Your task to perform on an android device: open app "Mercado Libre" Image 0: 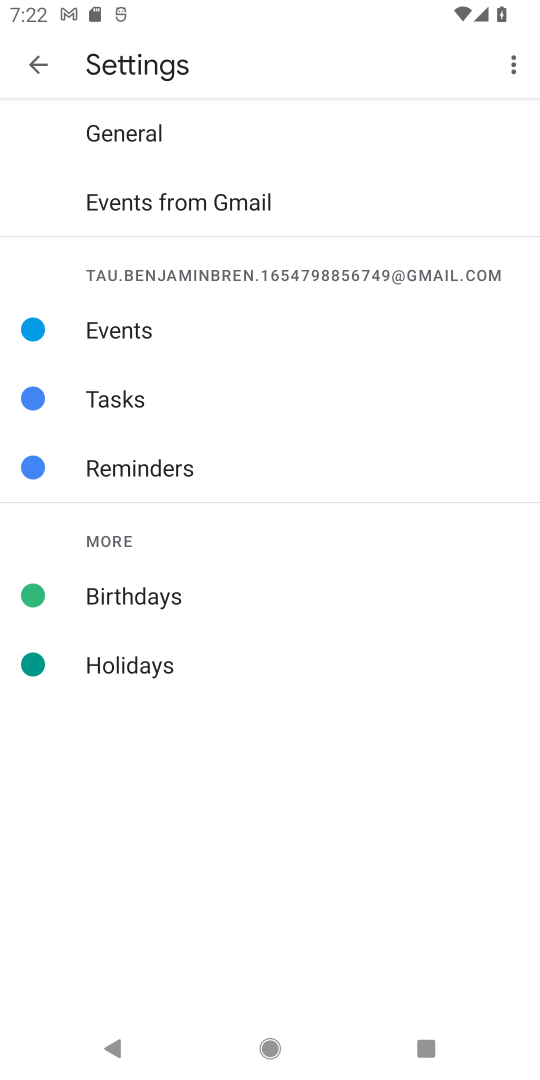
Step 0: drag from (292, 793) to (332, 322)
Your task to perform on an android device: open app "Mercado Libre" Image 1: 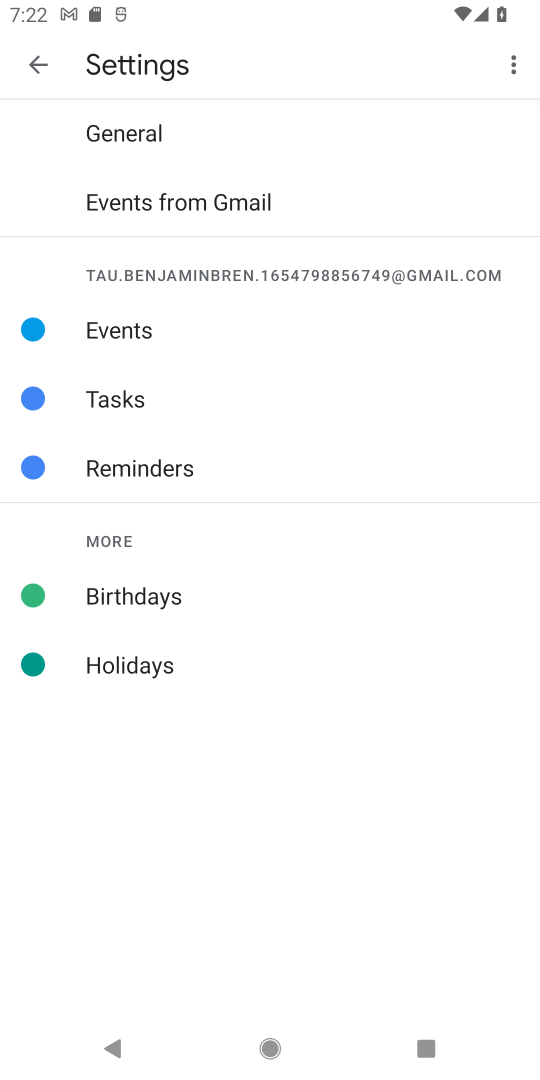
Step 1: press home button
Your task to perform on an android device: open app "Mercado Libre" Image 2: 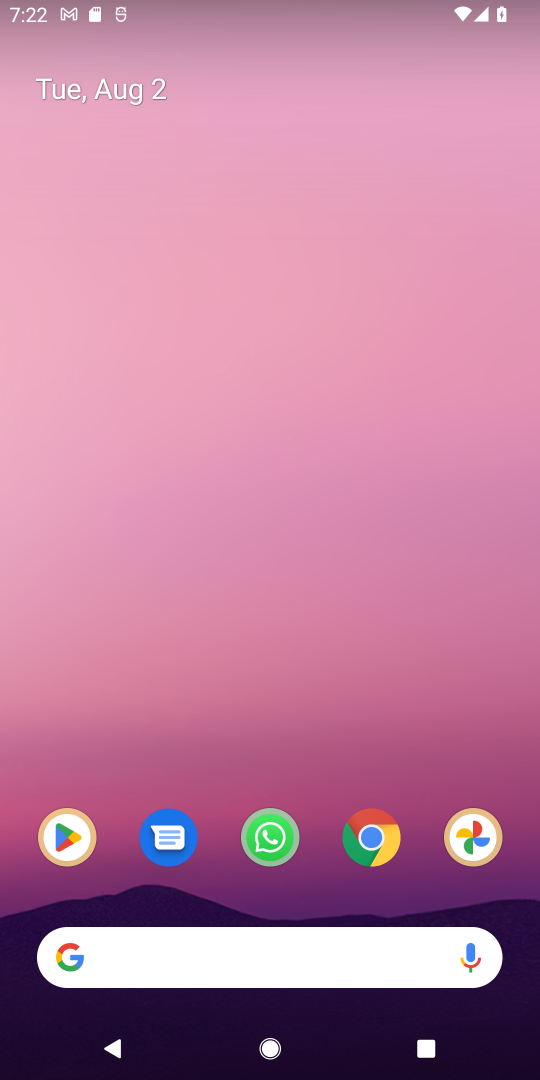
Step 2: drag from (214, 689) to (217, 214)
Your task to perform on an android device: open app "Mercado Libre" Image 3: 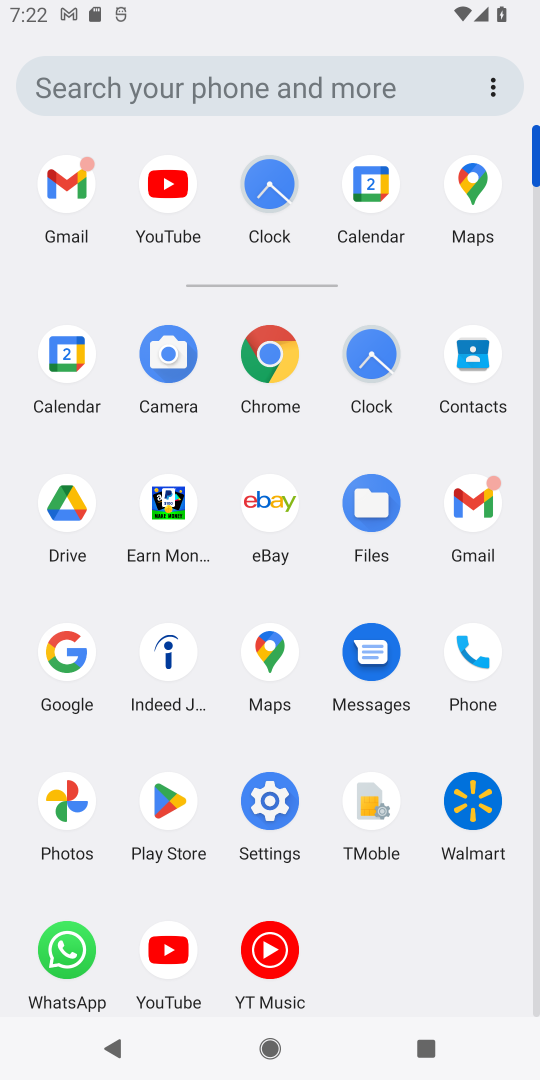
Step 3: click (170, 800)
Your task to perform on an android device: open app "Mercado Libre" Image 4: 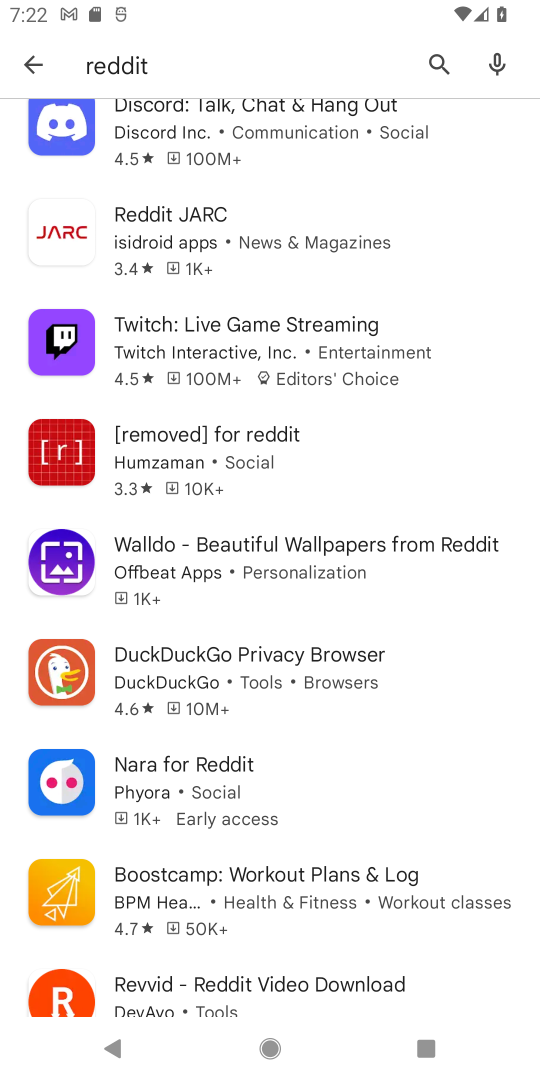
Step 4: click (442, 57)
Your task to perform on an android device: open app "Mercado Libre" Image 5: 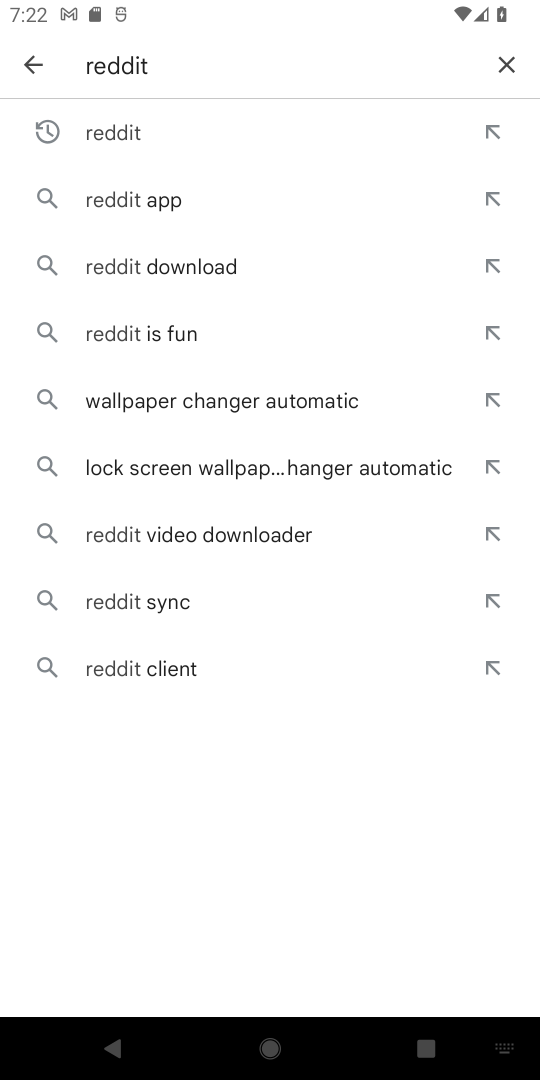
Step 5: click (503, 56)
Your task to perform on an android device: open app "Mercado Libre" Image 6: 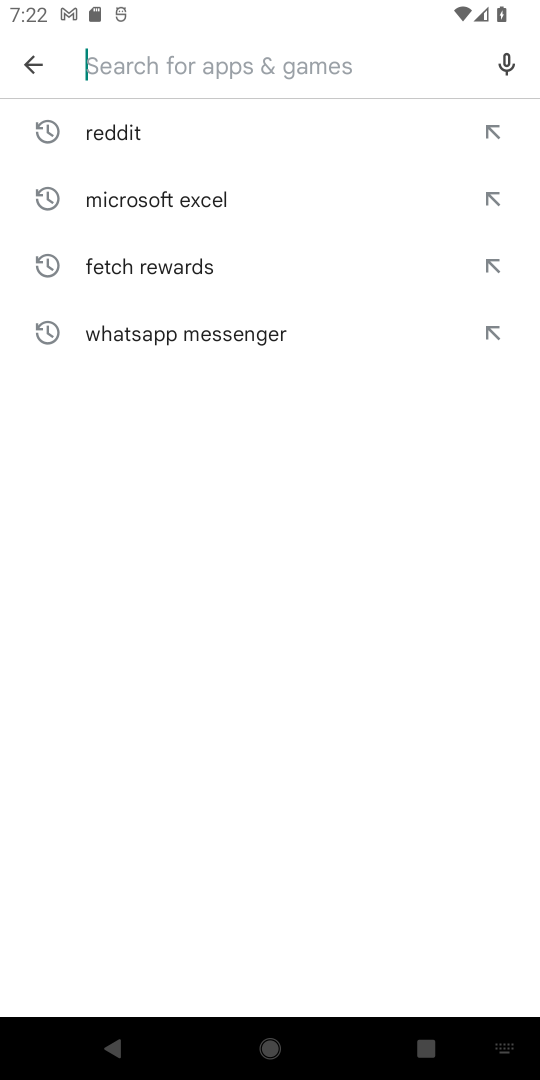
Step 6: type "Mercado Libre"
Your task to perform on an android device: open app "Mercado Libre" Image 7: 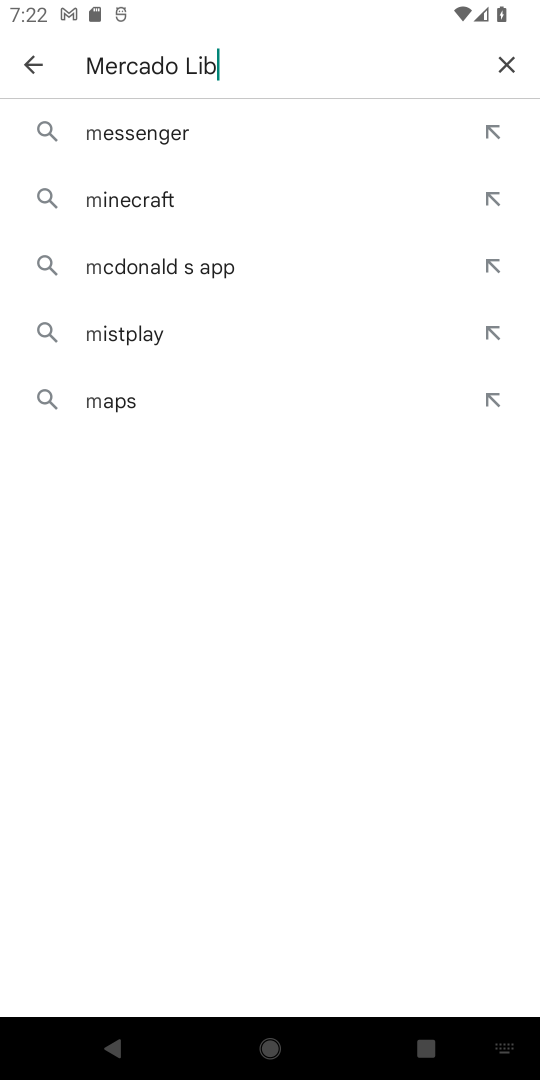
Step 7: type ""
Your task to perform on an android device: open app "Mercado Libre" Image 8: 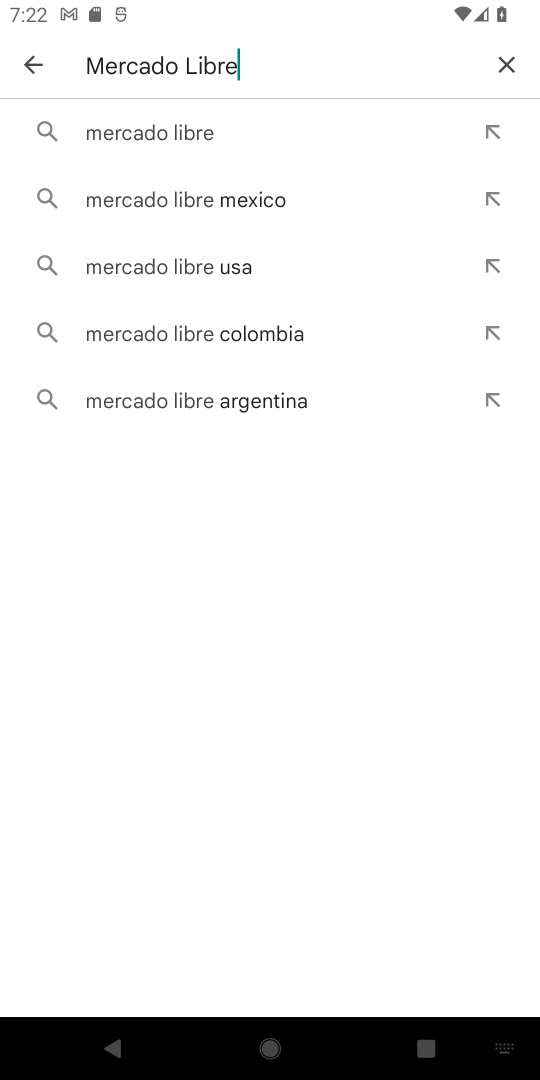
Step 8: click (255, 137)
Your task to perform on an android device: open app "Mercado Libre" Image 9: 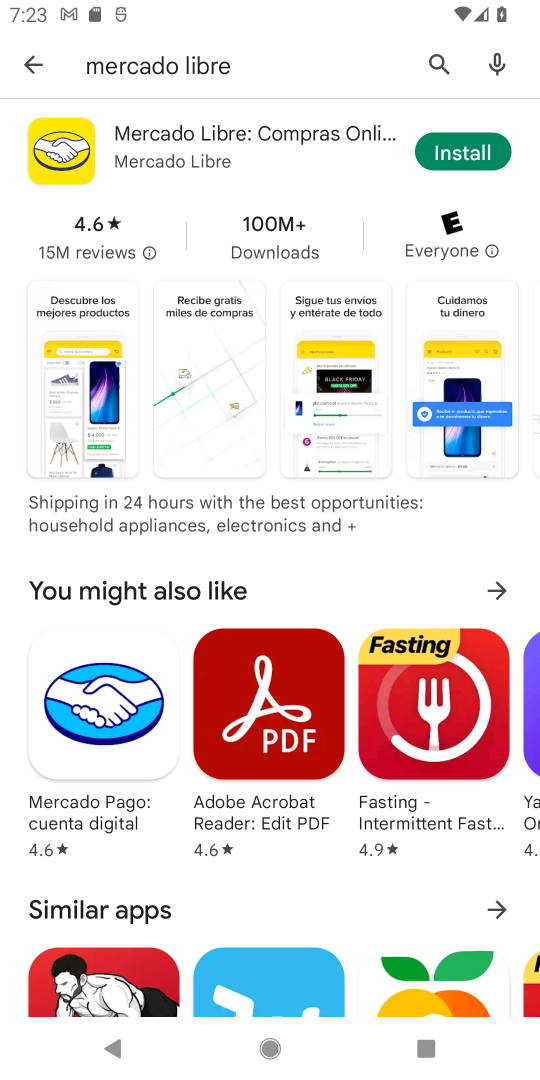
Step 9: click (163, 134)
Your task to perform on an android device: open app "Mercado Libre" Image 10: 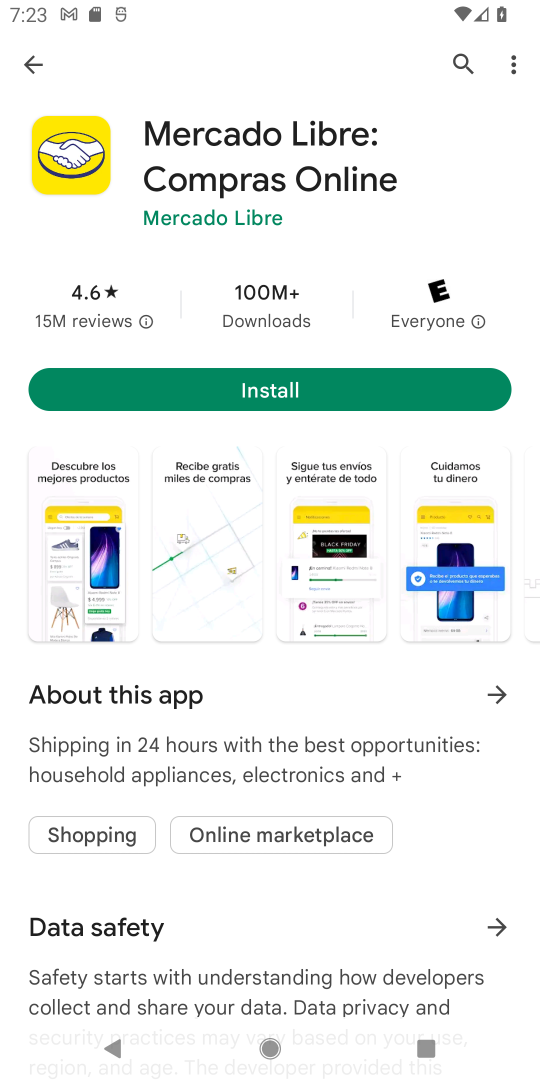
Step 10: task complete